Your task to perform on an android device: Open eBay Image 0: 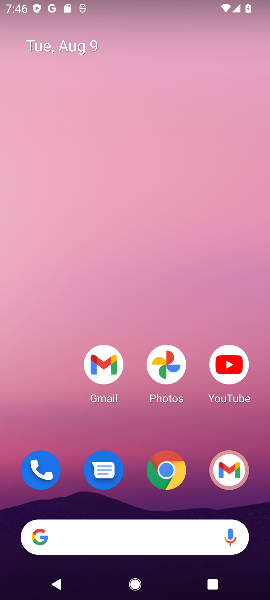
Step 0: click (102, 525)
Your task to perform on an android device: Open eBay Image 1: 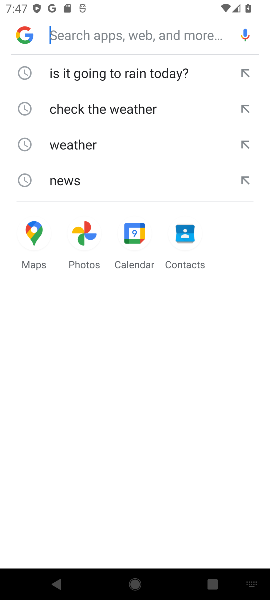
Step 1: type "ebay"
Your task to perform on an android device: Open eBay Image 2: 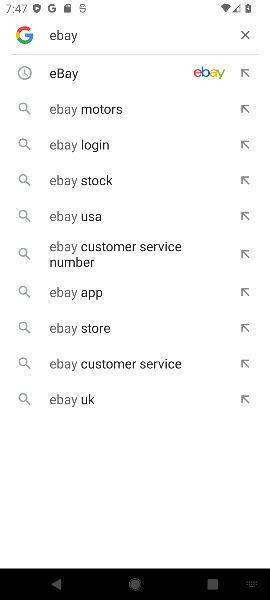
Step 2: click (204, 63)
Your task to perform on an android device: Open eBay Image 3: 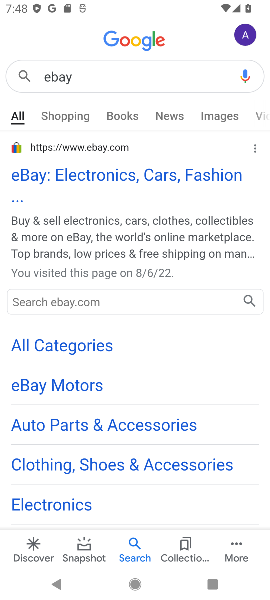
Step 3: click (96, 131)
Your task to perform on an android device: Open eBay Image 4: 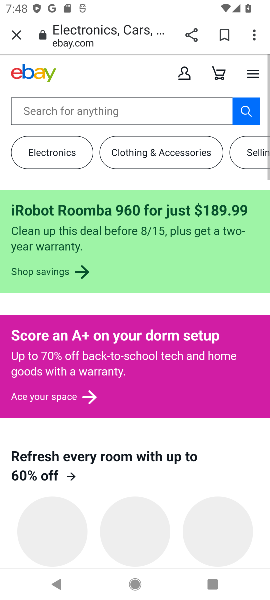
Step 4: task complete